Your task to perform on an android device: turn off airplane mode Image 0: 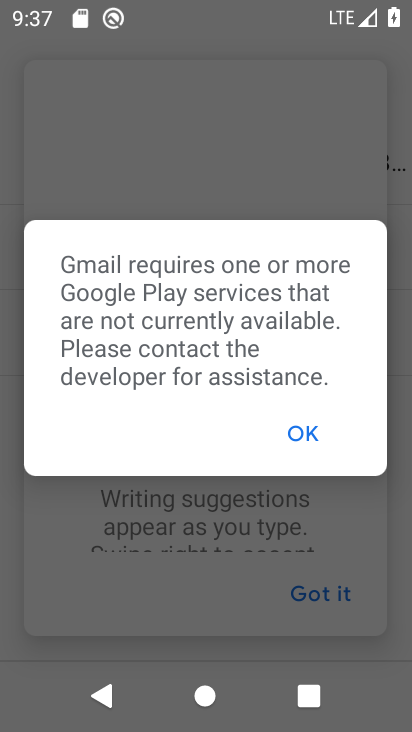
Step 0: press home button
Your task to perform on an android device: turn off airplane mode Image 1: 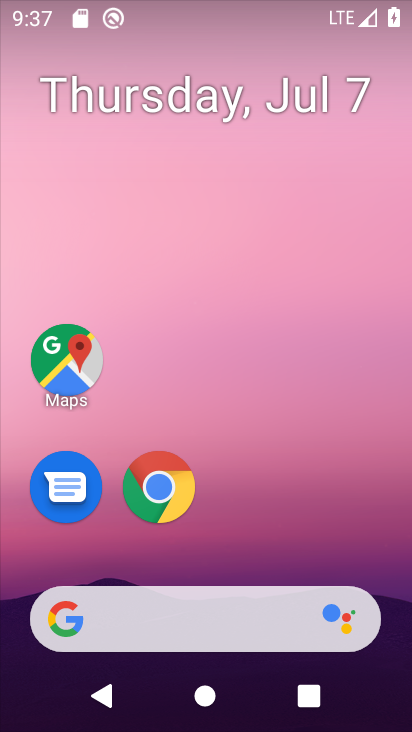
Step 1: drag from (344, 508) to (342, 222)
Your task to perform on an android device: turn off airplane mode Image 2: 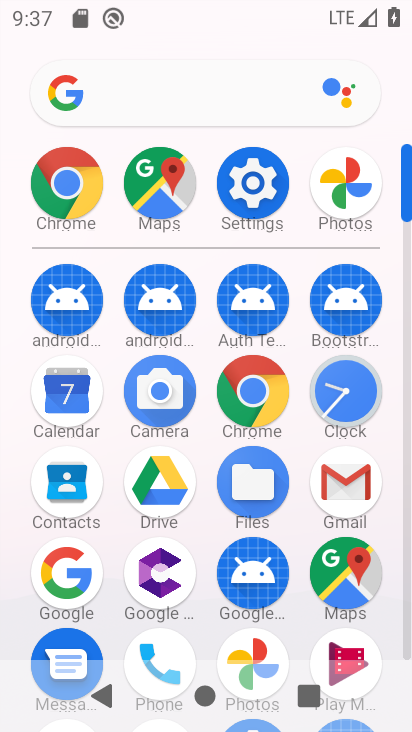
Step 2: click (270, 188)
Your task to perform on an android device: turn off airplane mode Image 3: 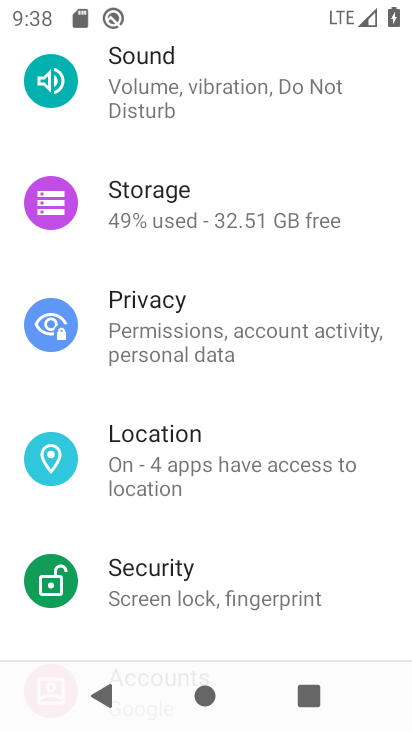
Step 3: drag from (332, 165) to (351, 251)
Your task to perform on an android device: turn off airplane mode Image 4: 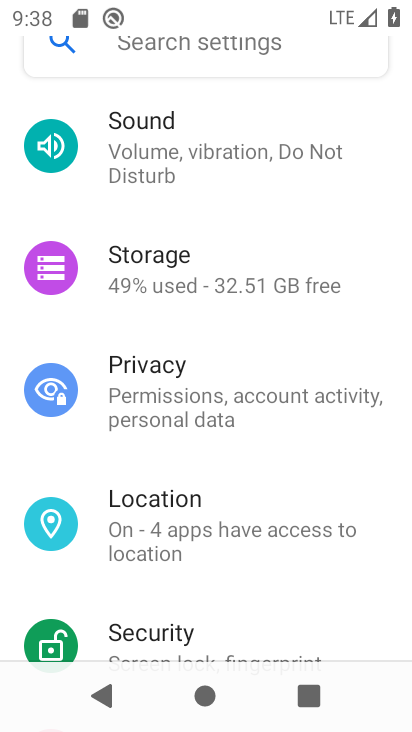
Step 4: drag from (364, 205) to (374, 285)
Your task to perform on an android device: turn off airplane mode Image 5: 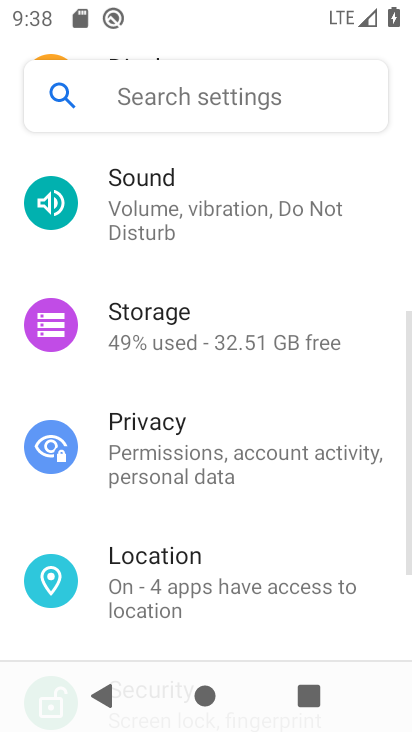
Step 5: drag from (368, 201) to (374, 273)
Your task to perform on an android device: turn off airplane mode Image 6: 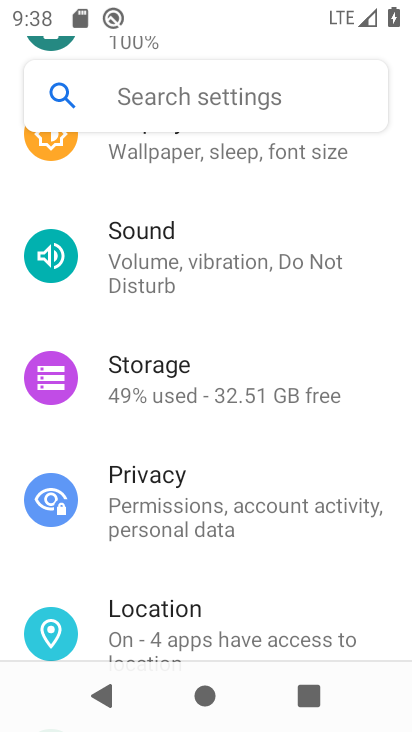
Step 6: click (371, 231)
Your task to perform on an android device: turn off airplane mode Image 7: 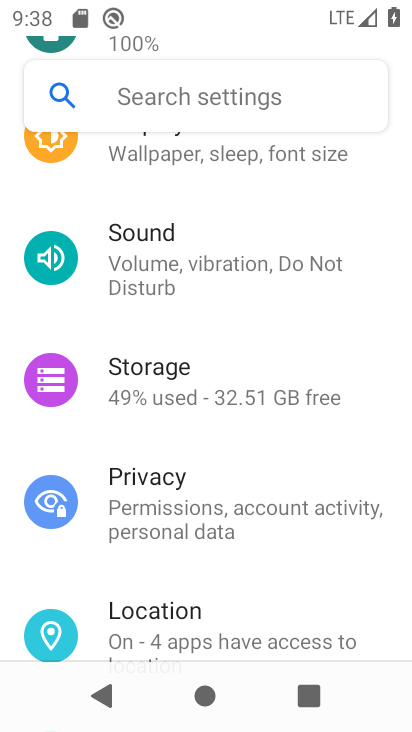
Step 7: drag from (365, 193) to (378, 332)
Your task to perform on an android device: turn off airplane mode Image 8: 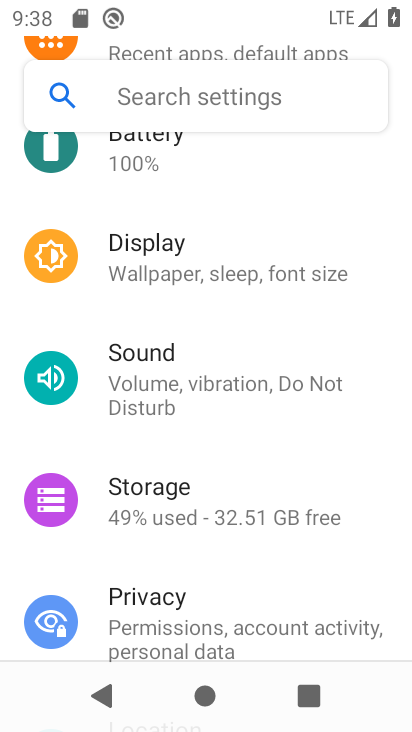
Step 8: drag from (378, 241) to (379, 290)
Your task to perform on an android device: turn off airplane mode Image 9: 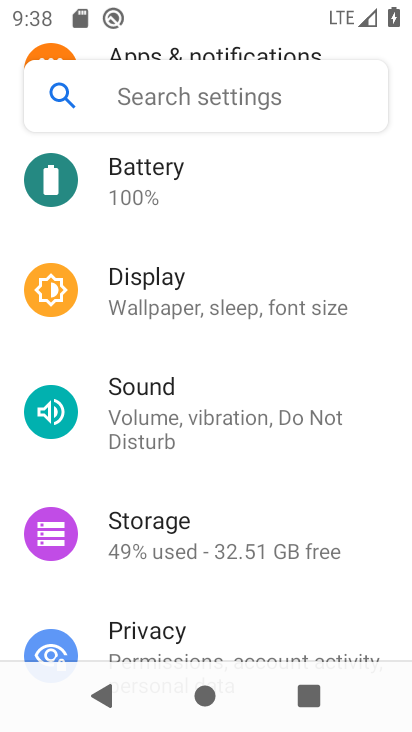
Step 9: drag from (377, 236) to (377, 313)
Your task to perform on an android device: turn off airplane mode Image 10: 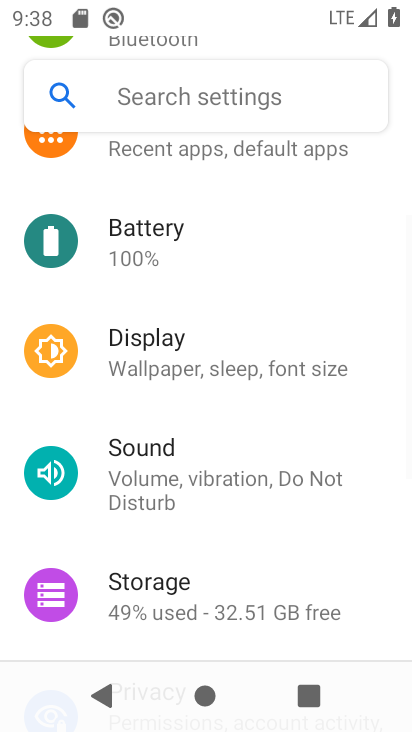
Step 10: drag from (377, 216) to (378, 261)
Your task to perform on an android device: turn off airplane mode Image 11: 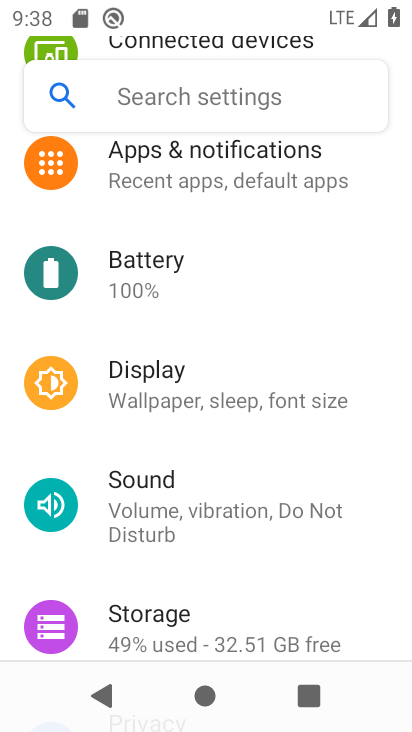
Step 11: drag from (373, 199) to (372, 317)
Your task to perform on an android device: turn off airplane mode Image 12: 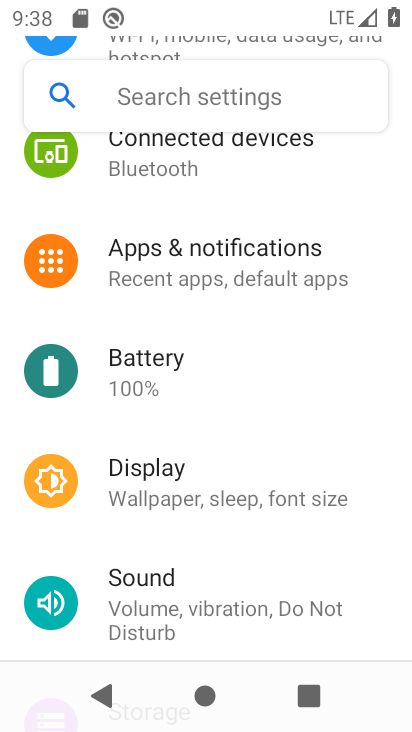
Step 12: drag from (367, 231) to (364, 358)
Your task to perform on an android device: turn off airplane mode Image 13: 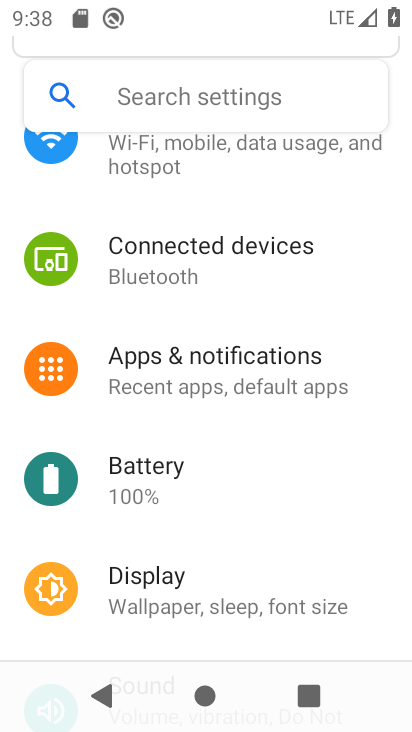
Step 13: drag from (371, 281) to (374, 334)
Your task to perform on an android device: turn off airplane mode Image 14: 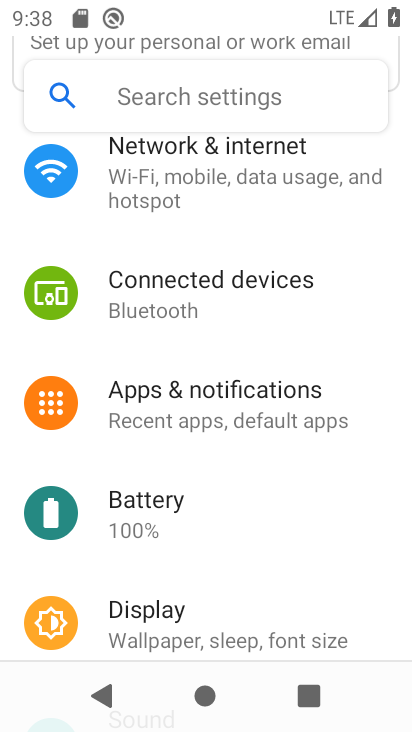
Step 14: click (338, 171)
Your task to perform on an android device: turn off airplane mode Image 15: 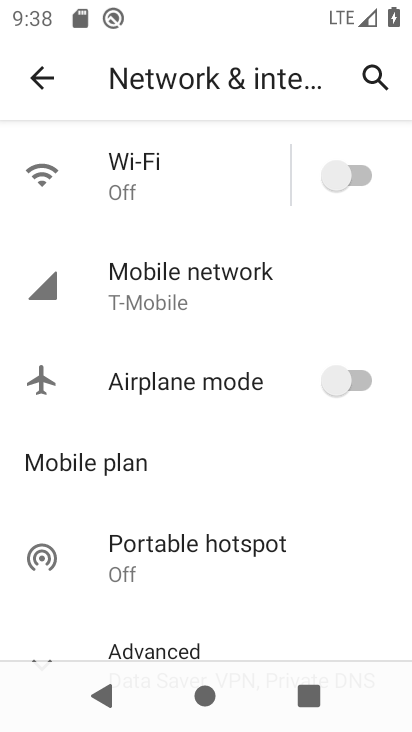
Step 15: task complete